Your task to perform on an android device: set the stopwatch Image 0: 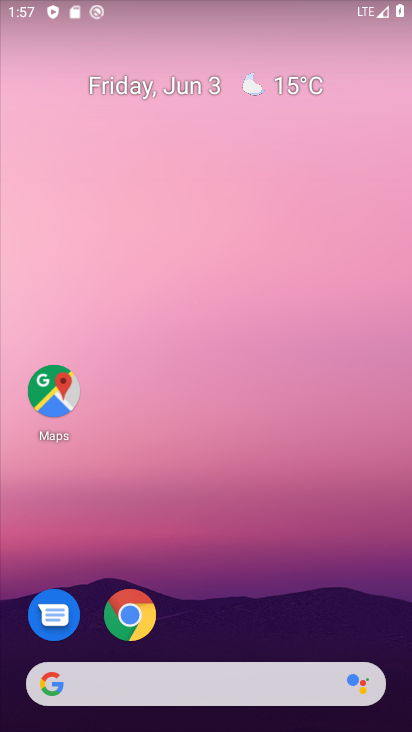
Step 0: drag from (196, 637) to (350, 95)
Your task to perform on an android device: set the stopwatch Image 1: 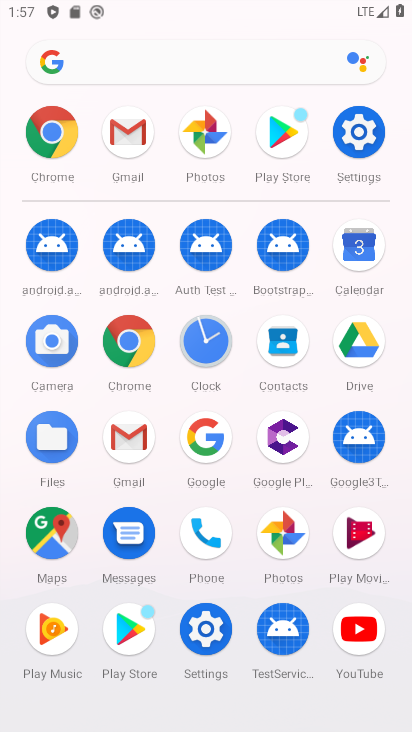
Step 1: click (203, 350)
Your task to perform on an android device: set the stopwatch Image 2: 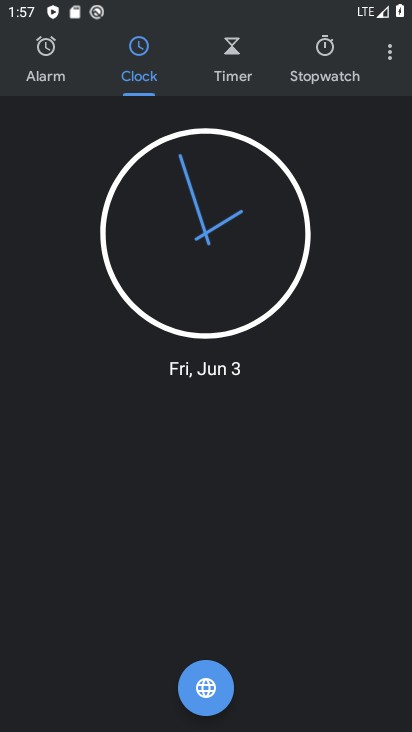
Step 2: click (306, 67)
Your task to perform on an android device: set the stopwatch Image 3: 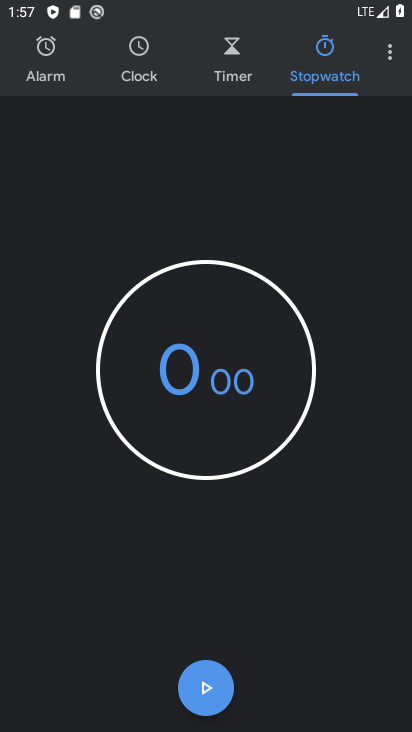
Step 3: click (212, 674)
Your task to perform on an android device: set the stopwatch Image 4: 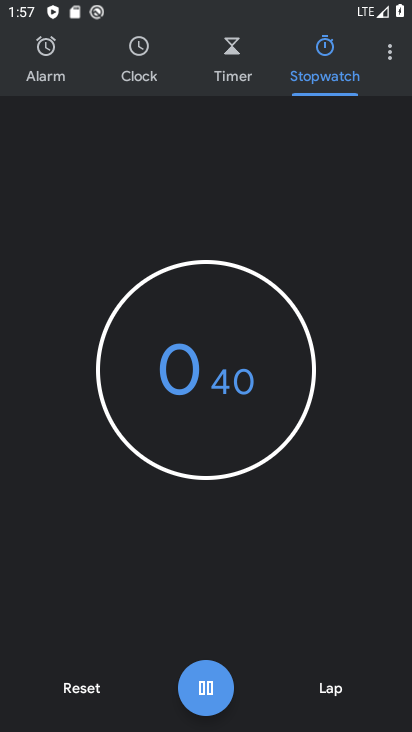
Step 4: task complete